Your task to perform on an android device: turn on javascript in the chrome app Image 0: 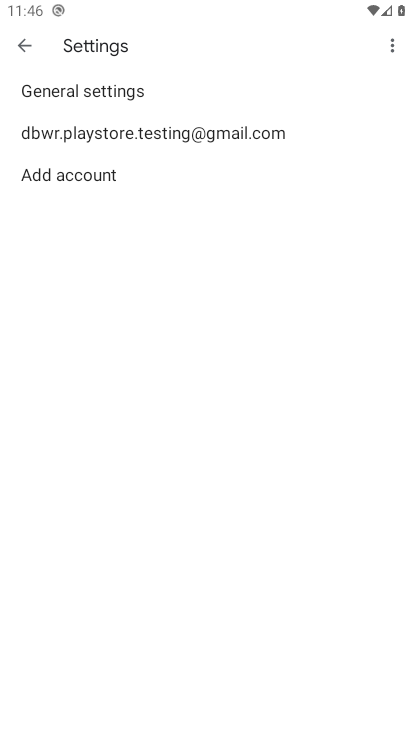
Step 0: press home button
Your task to perform on an android device: turn on javascript in the chrome app Image 1: 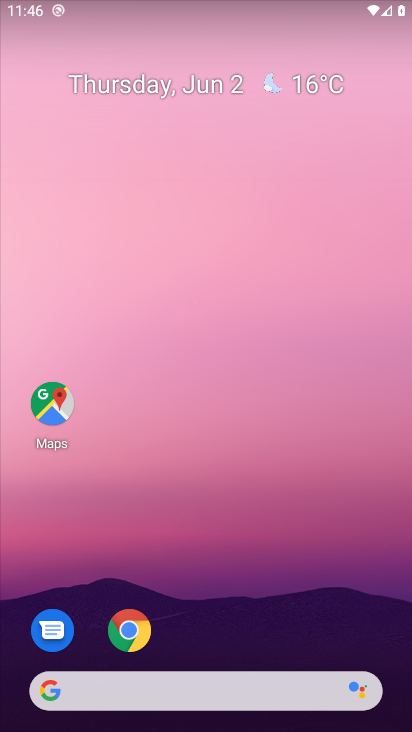
Step 1: click (140, 627)
Your task to perform on an android device: turn on javascript in the chrome app Image 2: 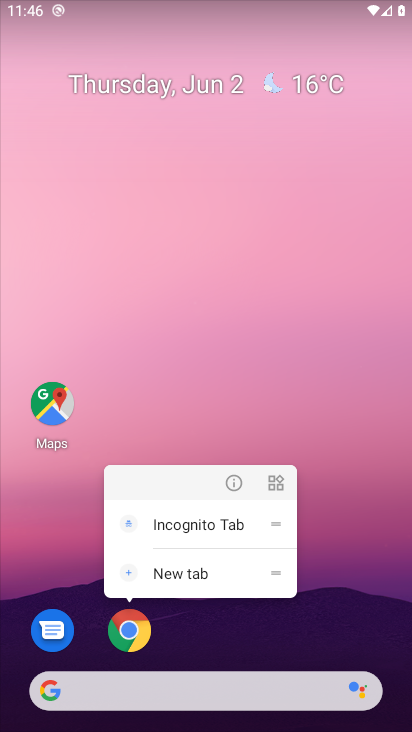
Step 2: click (150, 624)
Your task to perform on an android device: turn on javascript in the chrome app Image 3: 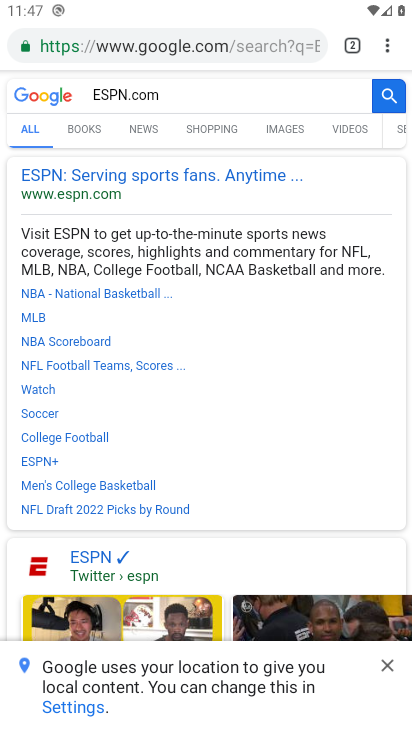
Step 3: click (394, 45)
Your task to perform on an android device: turn on javascript in the chrome app Image 4: 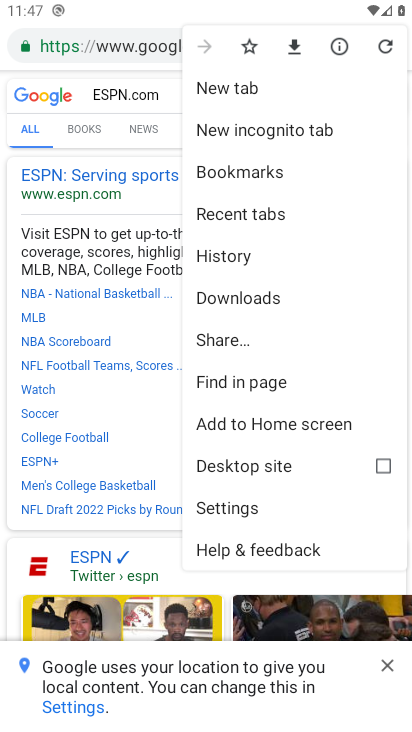
Step 4: click (249, 511)
Your task to perform on an android device: turn on javascript in the chrome app Image 5: 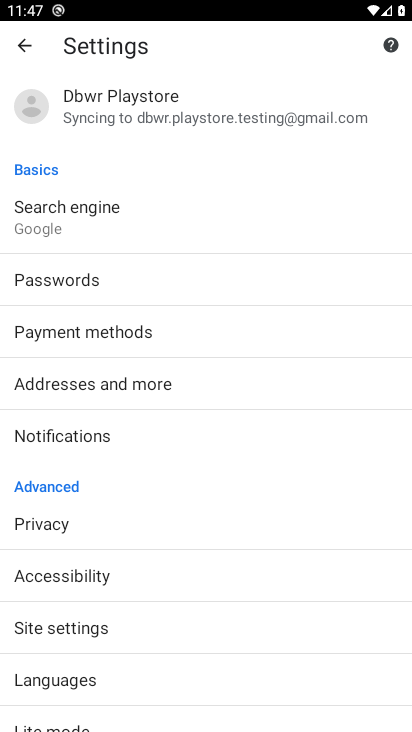
Step 5: click (64, 628)
Your task to perform on an android device: turn on javascript in the chrome app Image 6: 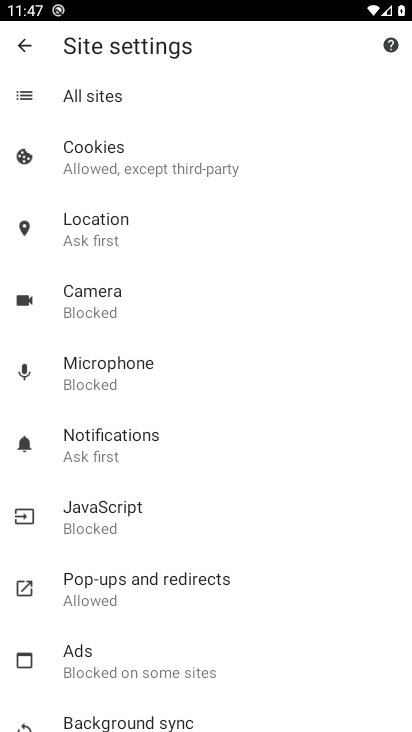
Step 6: click (117, 529)
Your task to perform on an android device: turn on javascript in the chrome app Image 7: 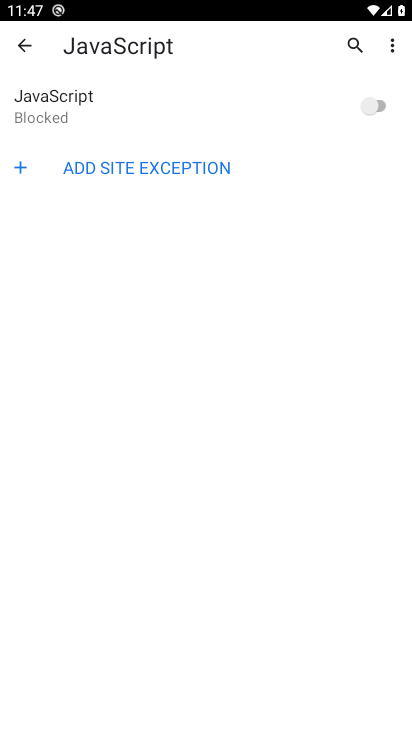
Step 7: click (388, 95)
Your task to perform on an android device: turn on javascript in the chrome app Image 8: 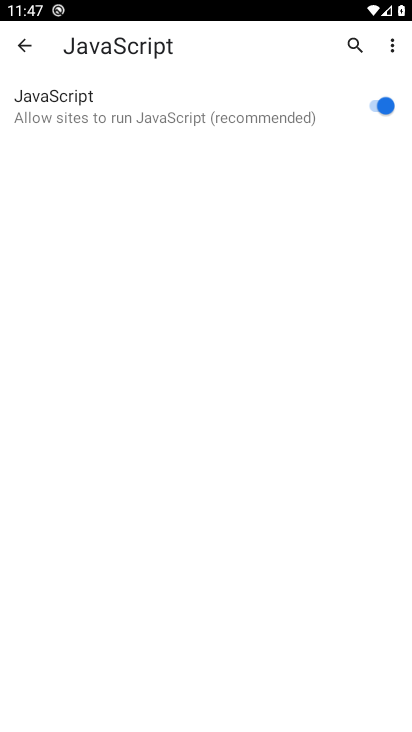
Step 8: task complete